Your task to perform on an android device: Find coffee shops on Maps Image 0: 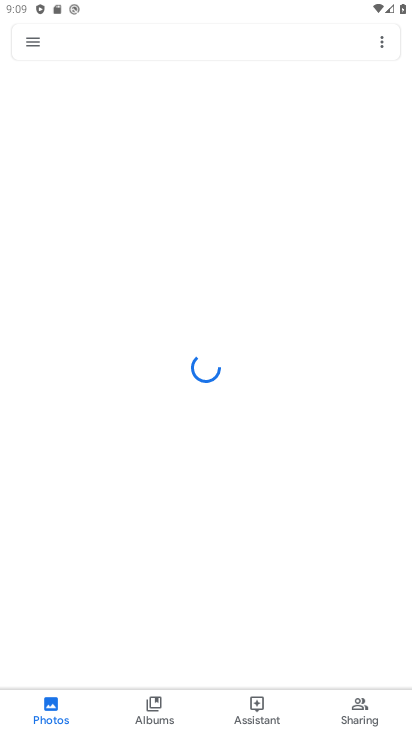
Step 0: press home button
Your task to perform on an android device: Find coffee shops on Maps Image 1: 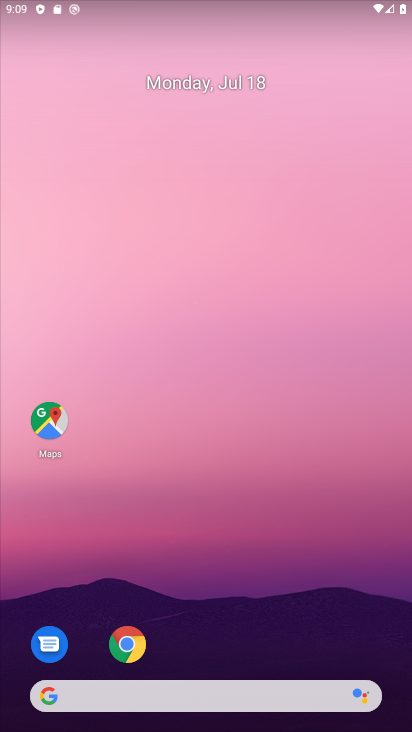
Step 1: drag from (217, 673) to (386, 3)
Your task to perform on an android device: Find coffee shops on Maps Image 2: 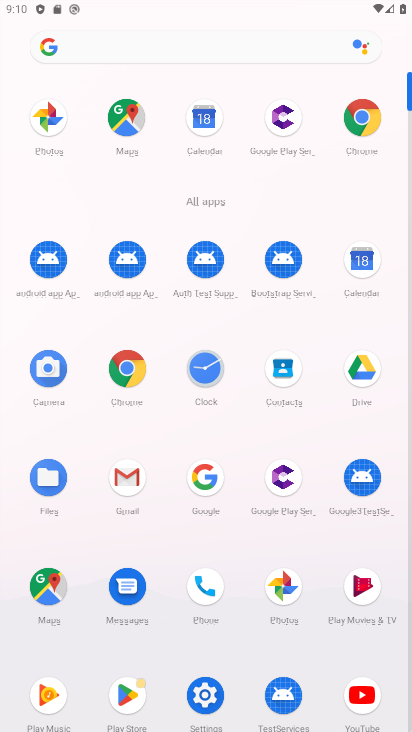
Step 2: click (40, 579)
Your task to perform on an android device: Find coffee shops on Maps Image 3: 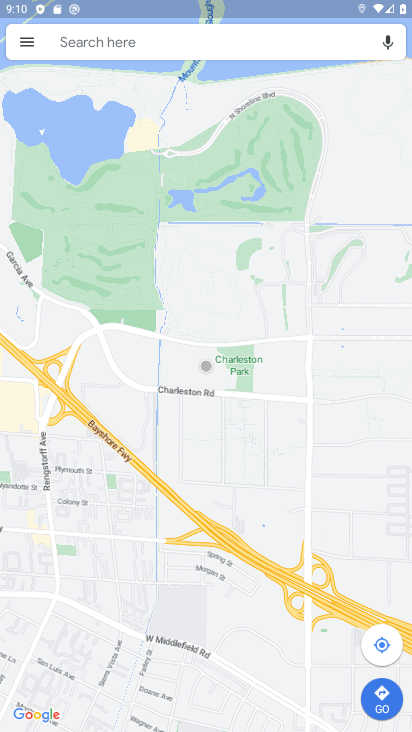
Step 3: click (149, 41)
Your task to perform on an android device: Find coffee shops on Maps Image 4: 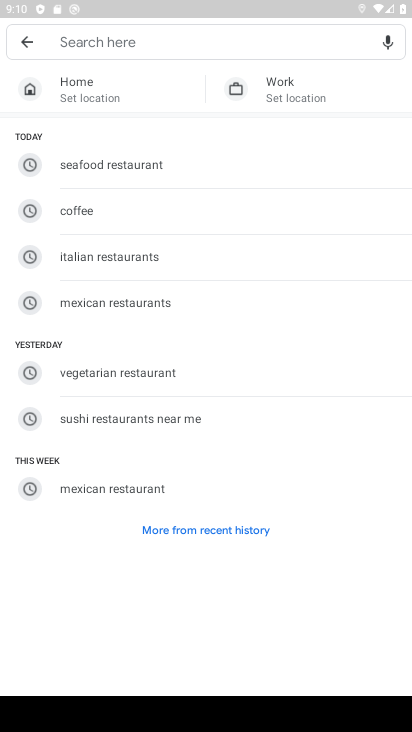
Step 4: click (73, 214)
Your task to perform on an android device: Find coffee shops on Maps Image 5: 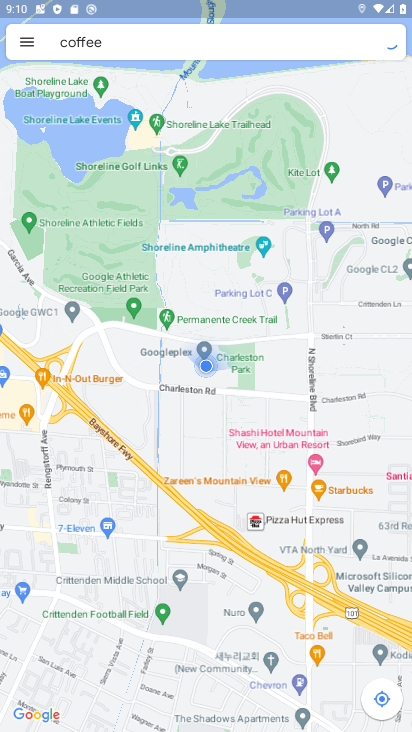
Step 5: task complete